Your task to perform on an android device: Go to wifi settings Image 0: 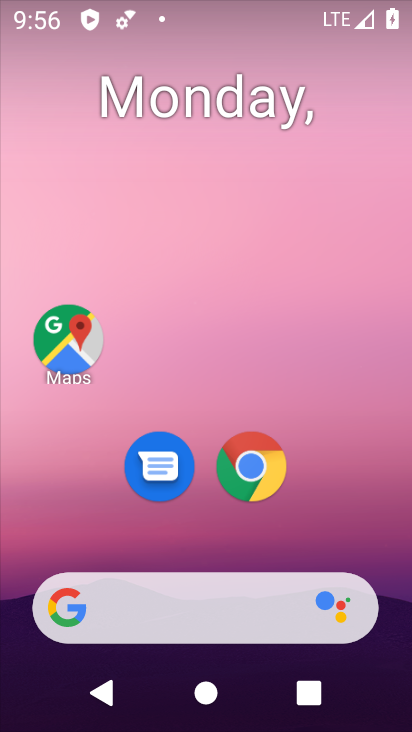
Step 0: drag from (373, 482) to (325, 0)
Your task to perform on an android device: Go to wifi settings Image 1: 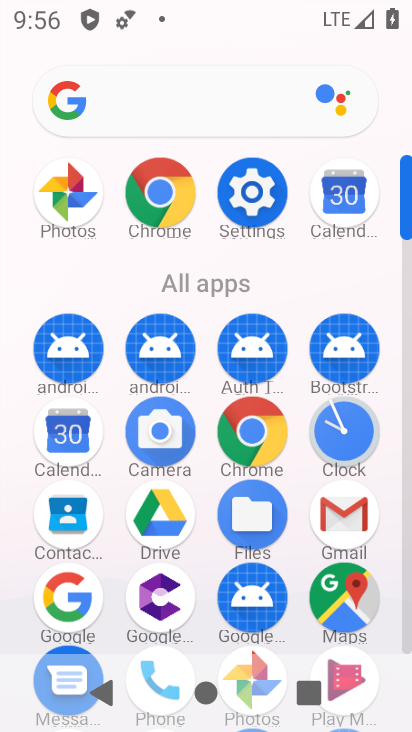
Step 1: drag from (325, 5) to (371, 459)
Your task to perform on an android device: Go to wifi settings Image 2: 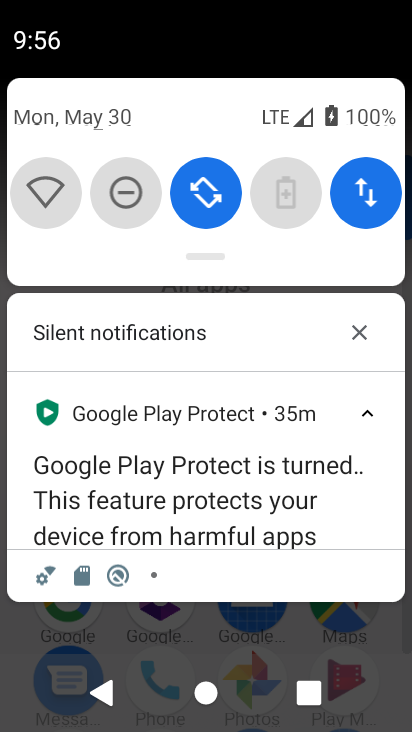
Step 2: click (55, 203)
Your task to perform on an android device: Go to wifi settings Image 3: 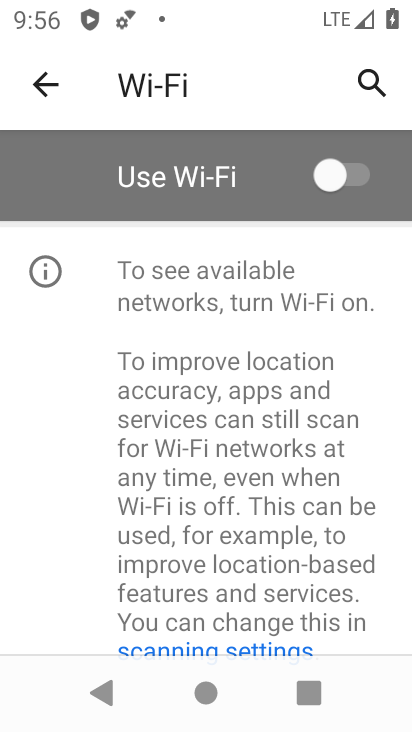
Step 3: task complete